Your task to perform on an android device: What's the news in Puerto Rico? Image 0: 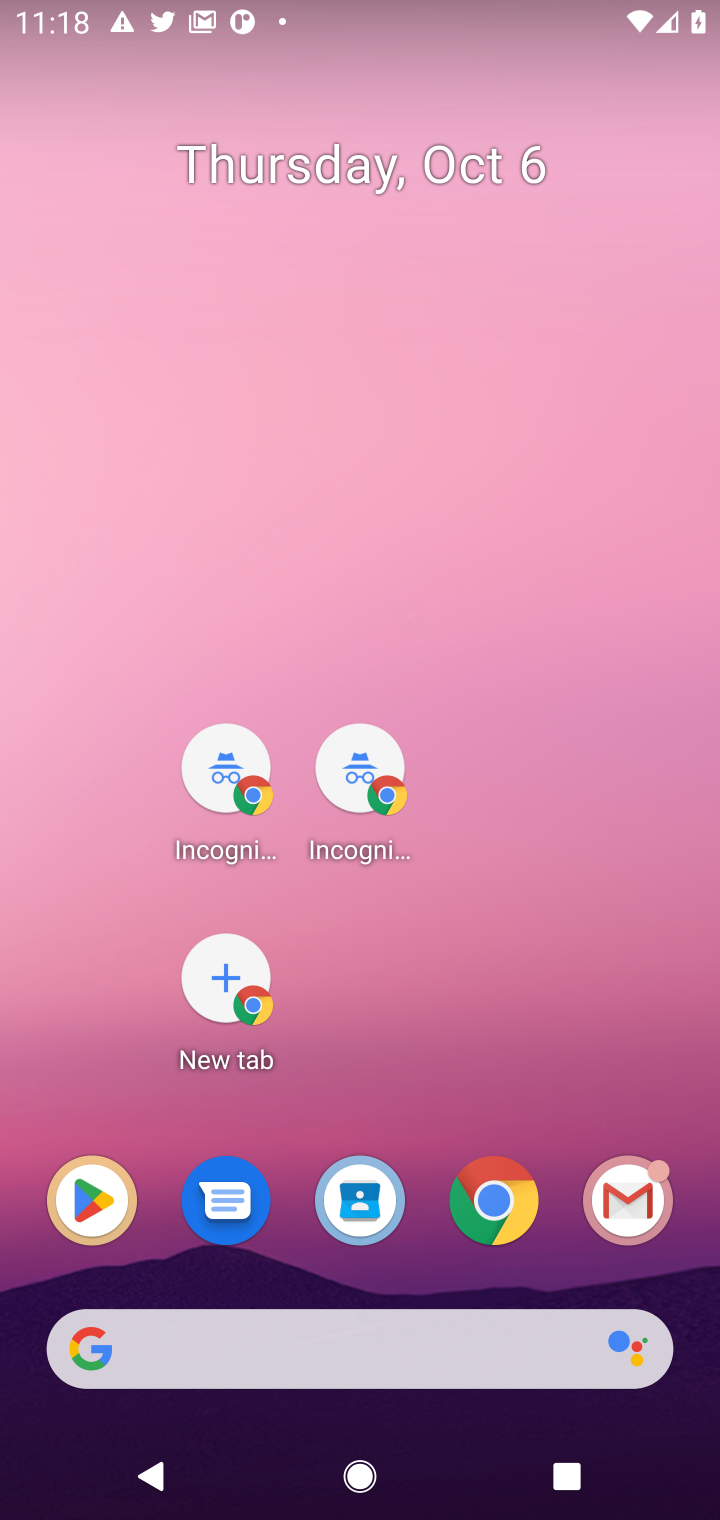
Step 0: click (508, 1216)
Your task to perform on an android device: What's the news in Puerto Rico? Image 1: 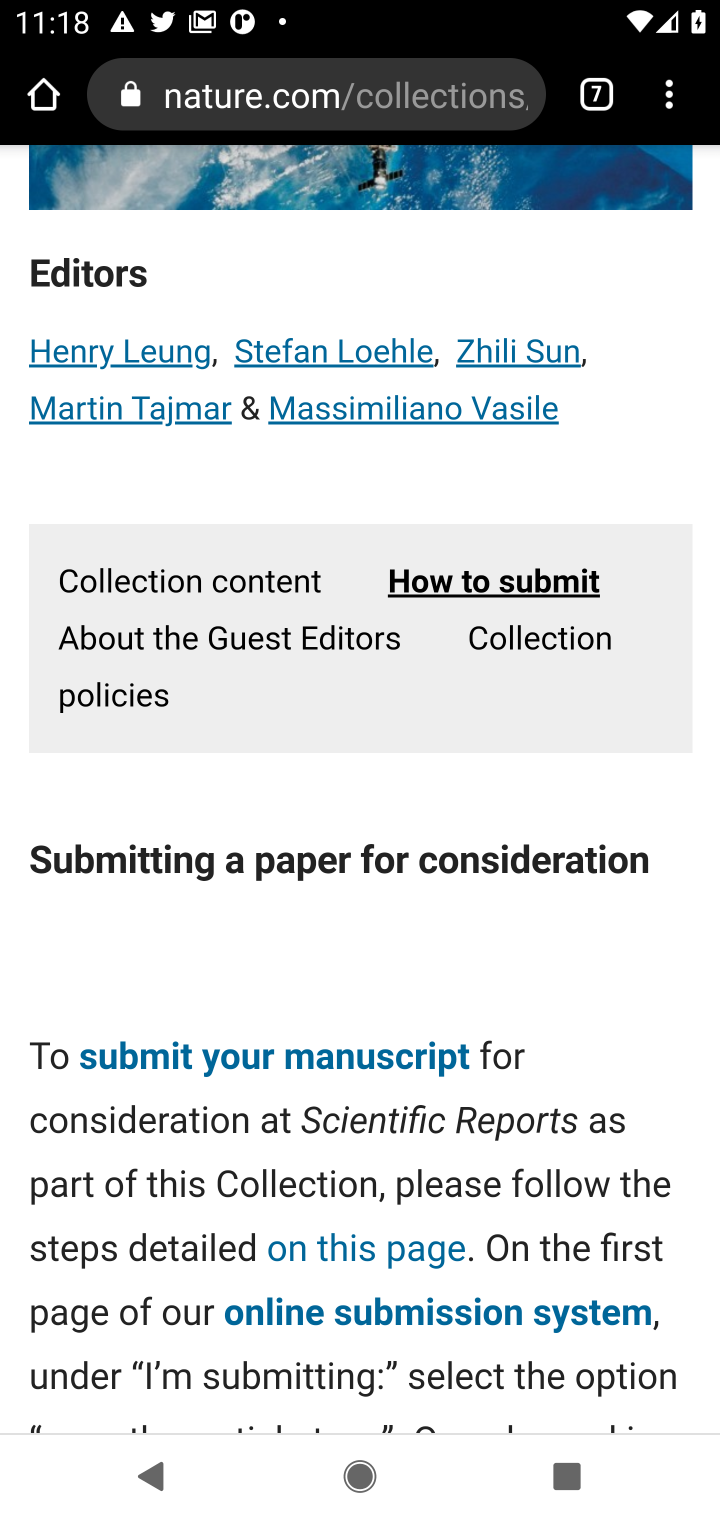
Step 1: press home button
Your task to perform on an android device: What's the news in Puerto Rico? Image 2: 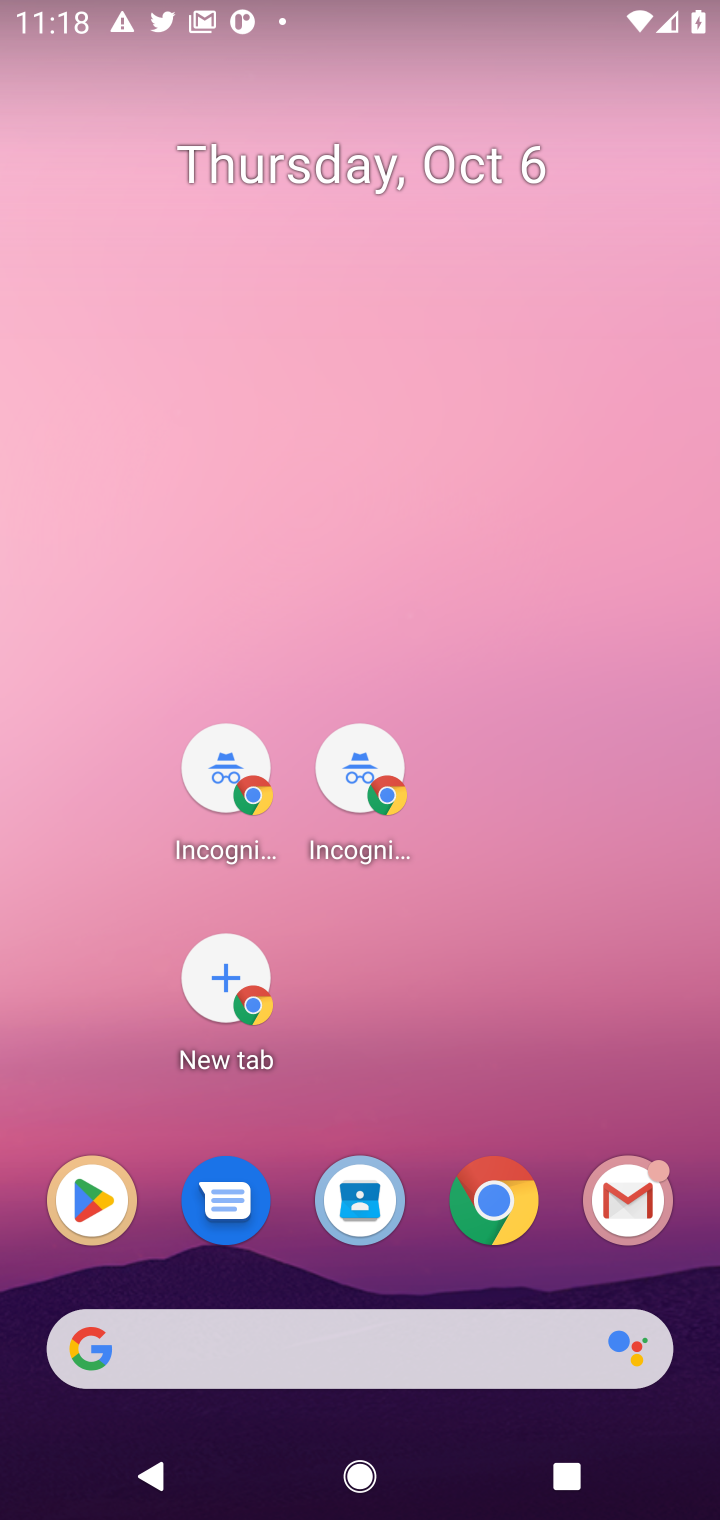
Step 2: click (479, 1196)
Your task to perform on an android device: What's the news in Puerto Rico? Image 3: 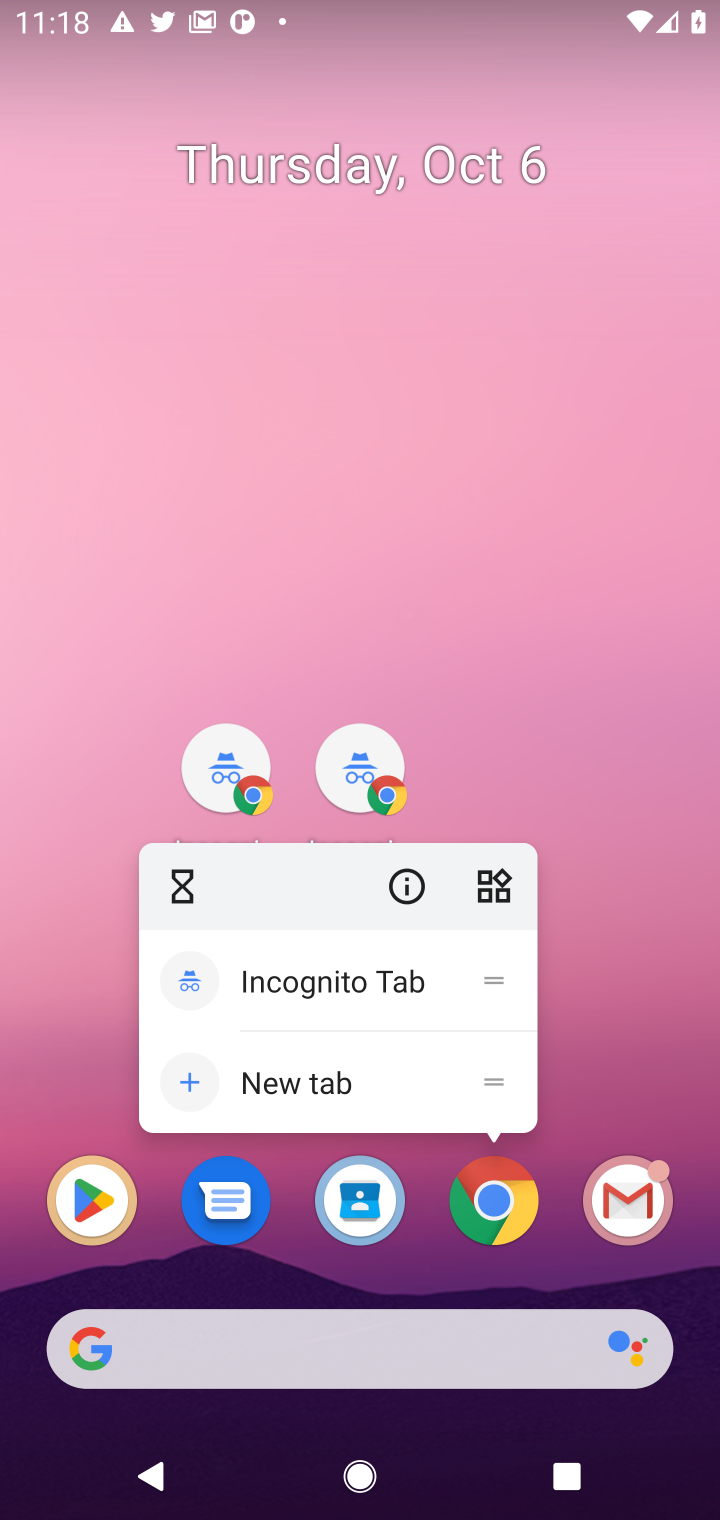
Step 3: press home button
Your task to perform on an android device: What's the news in Puerto Rico? Image 4: 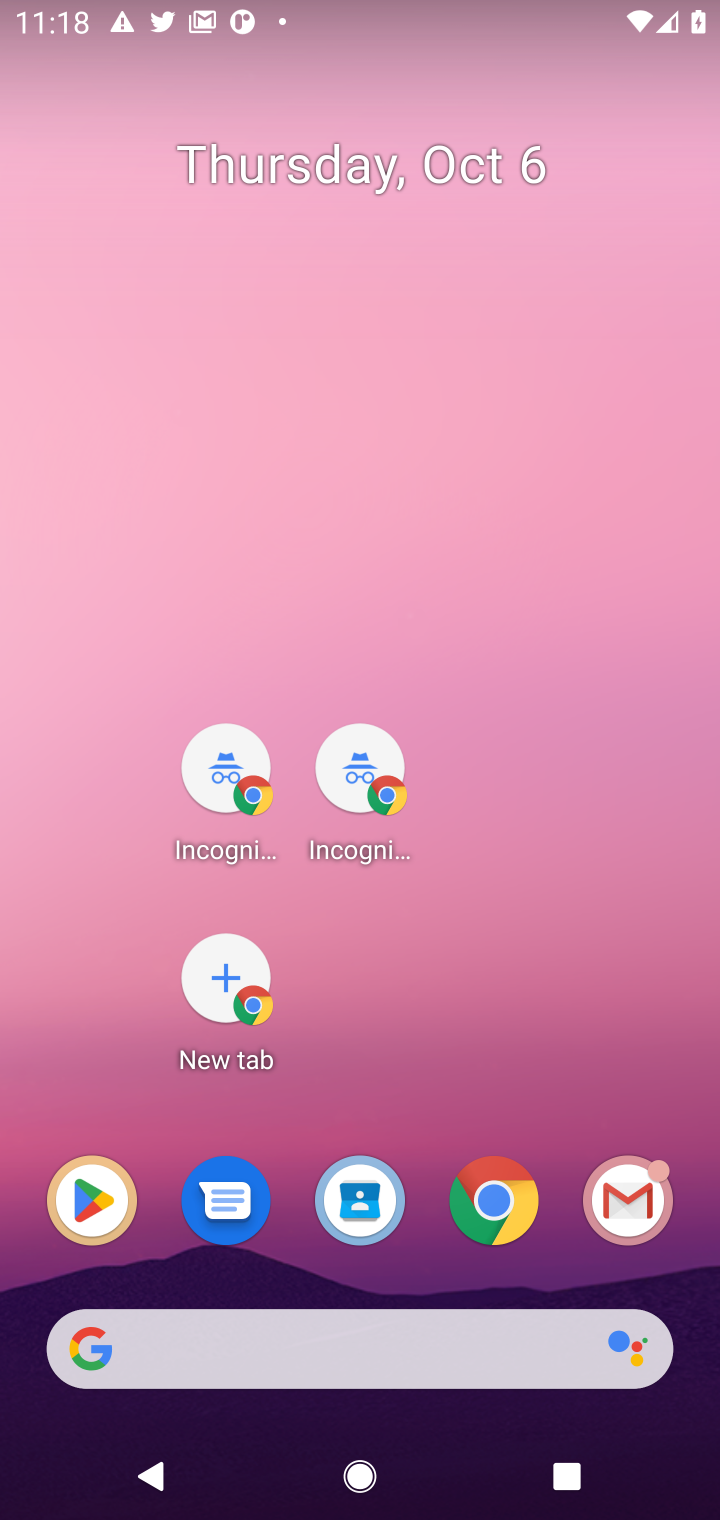
Step 4: press back button
Your task to perform on an android device: What's the news in Puerto Rico? Image 5: 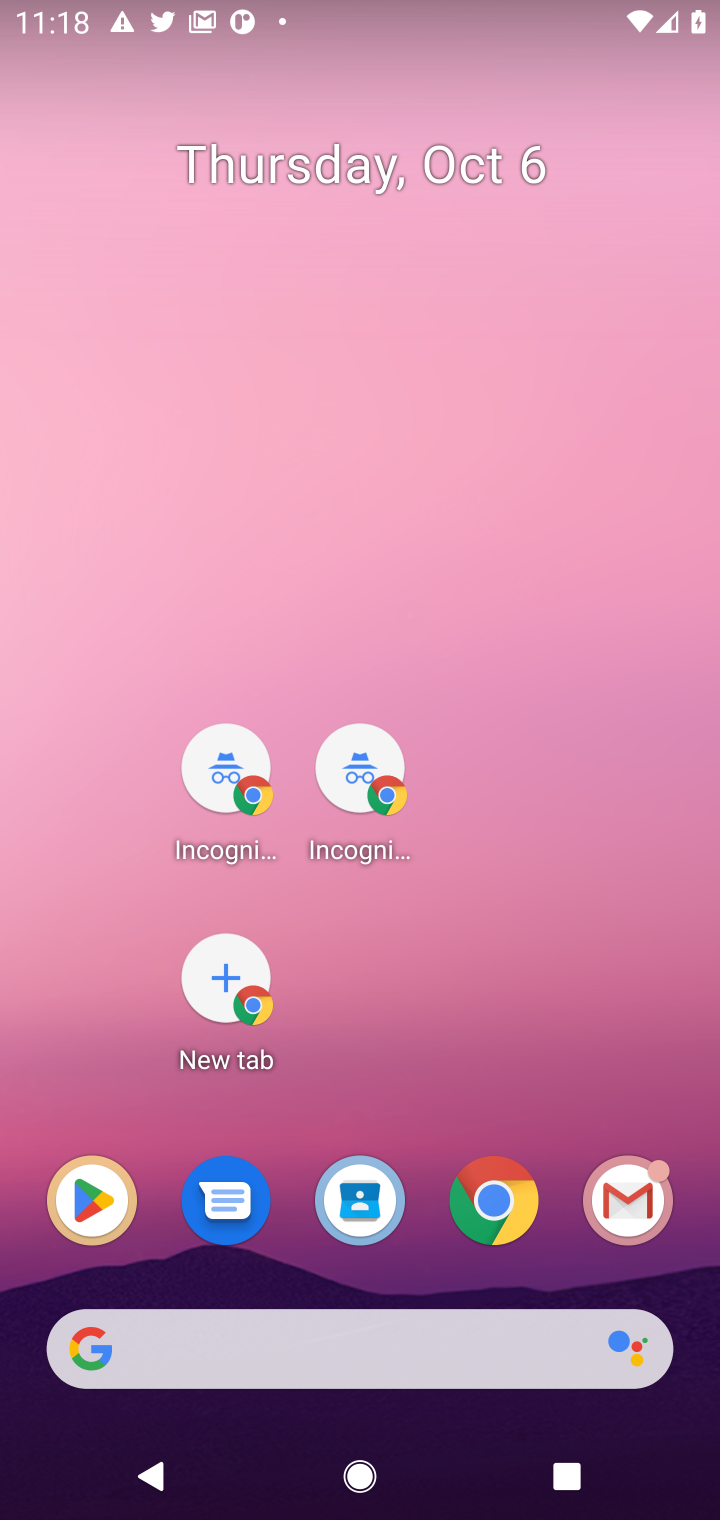
Step 5: press back button
Your task to perform on an android device: What's the news in Puerto Rico? Image 6: 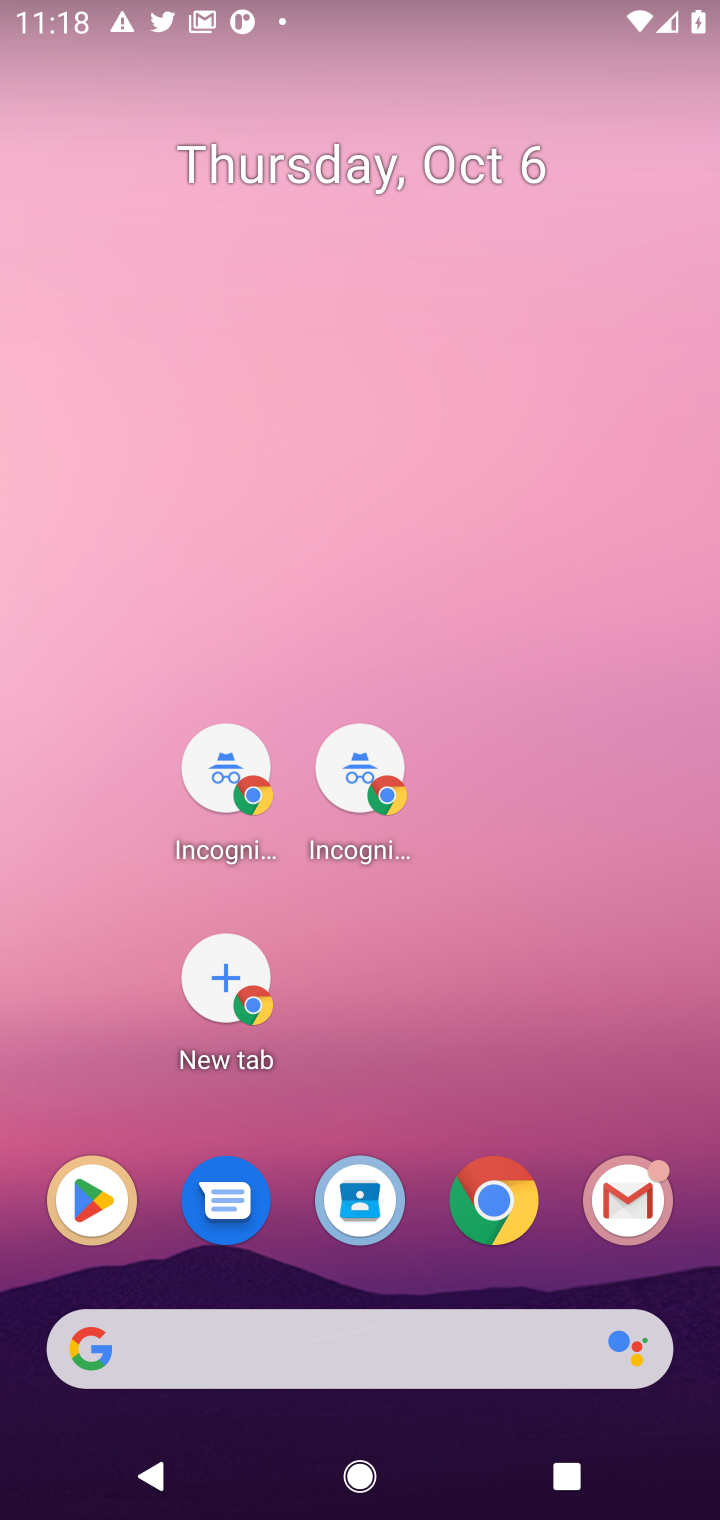
Step 6: click (513, 1211)
Your task to perform on an android device: What's the news in Puerto Rico? Image 7: 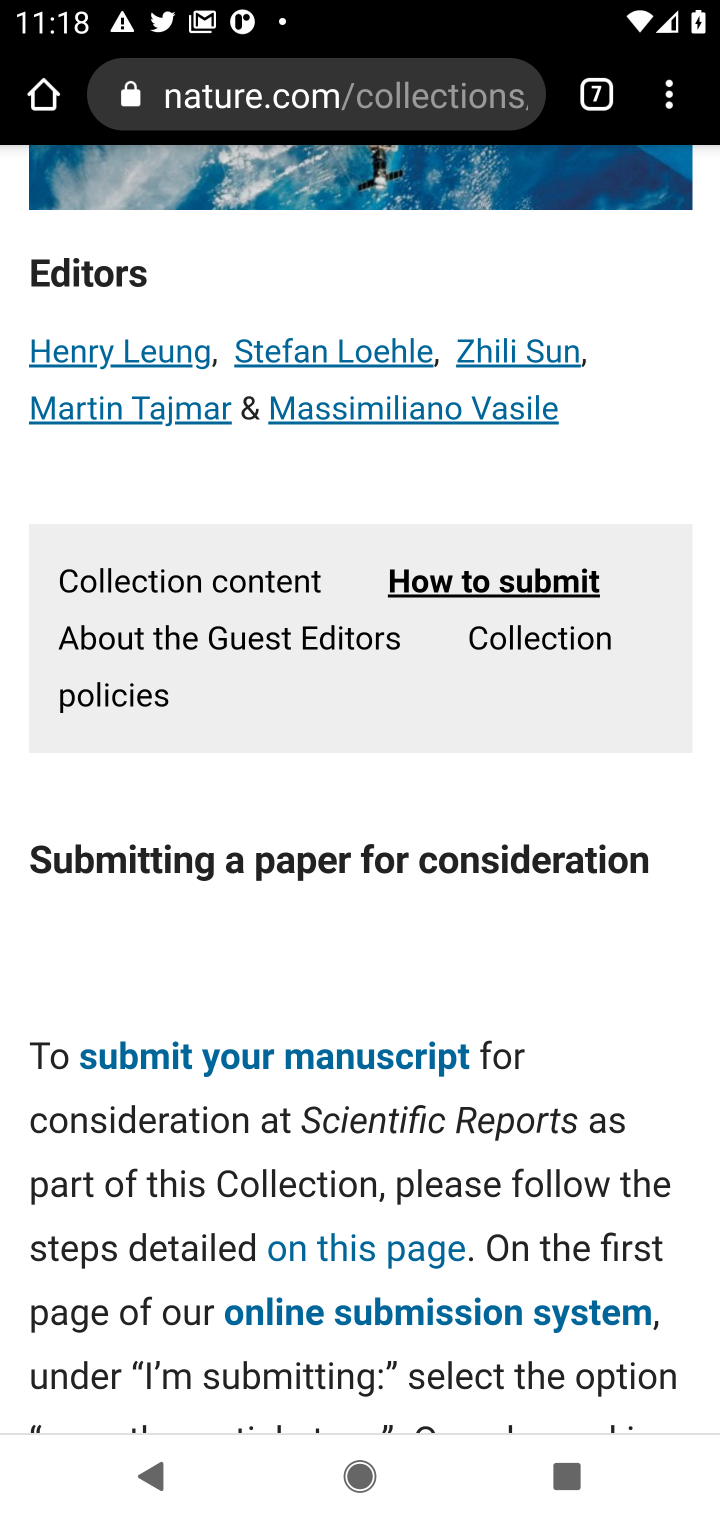
Step 7: click (342, 95)
Your task to perform on an android device: What's the news in Puerto Rico? Image 8: 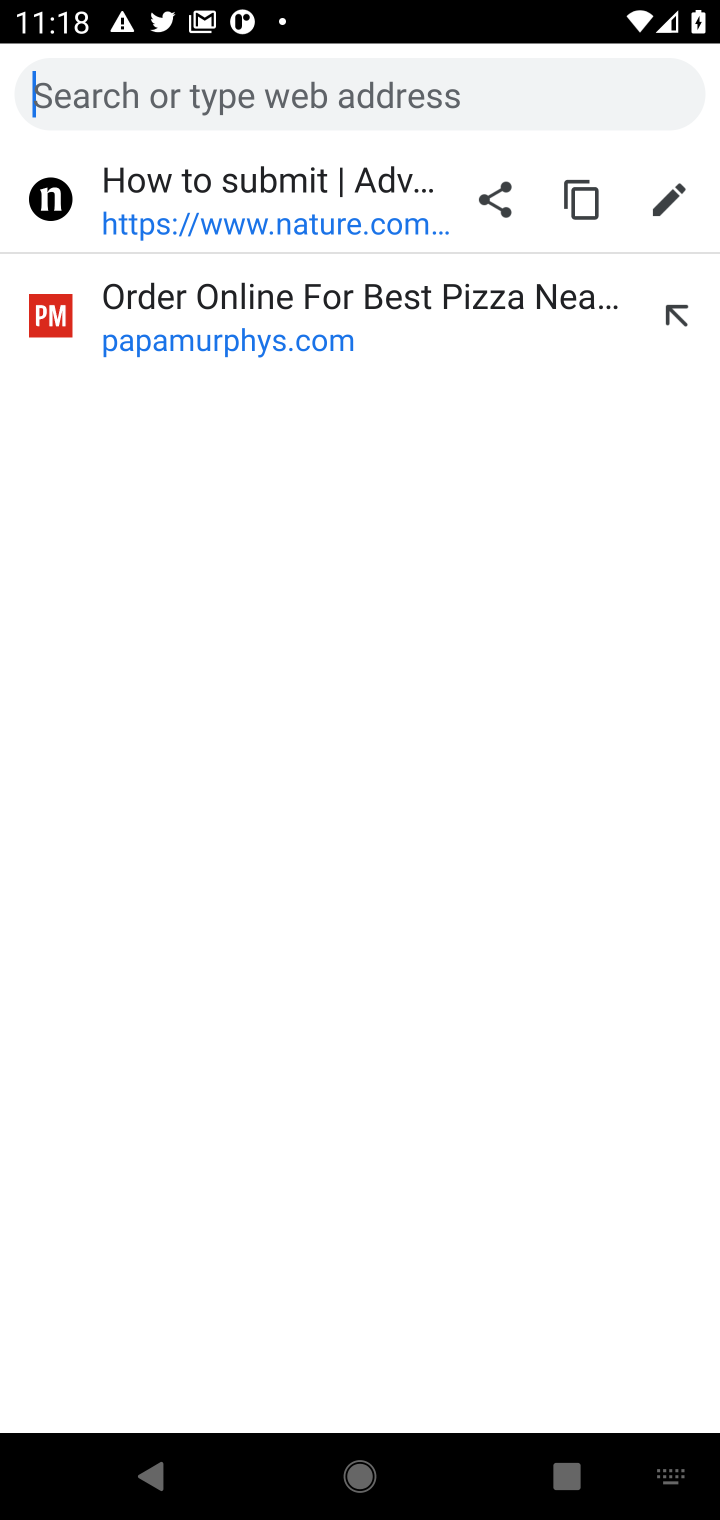
Step 8: type "news in puerto rico"
Your task to perform on an android device: What's the news in Puerto Rico? Image 9: 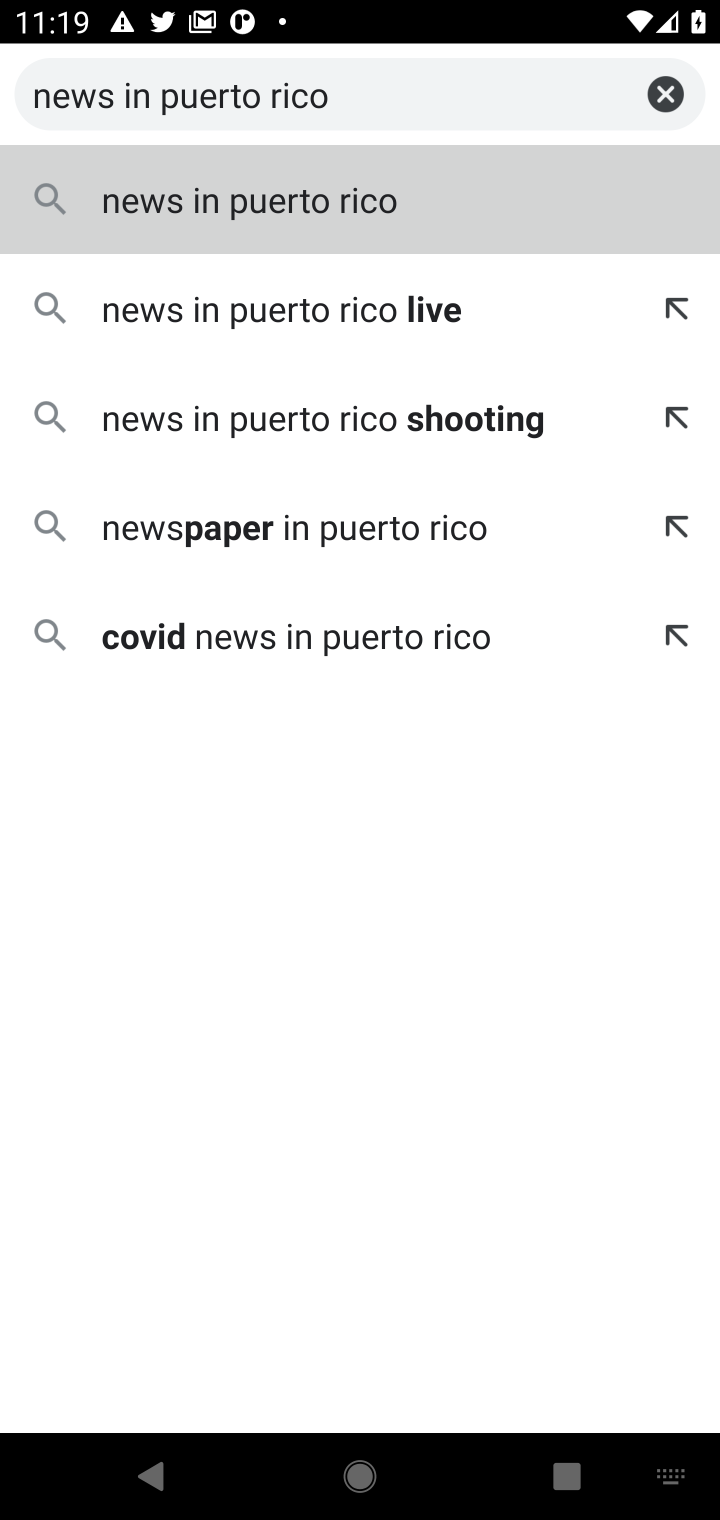
Step 9: click (245, 205)
Your task to perform on an android device: What's the news in Puerto Rico? Image 10: 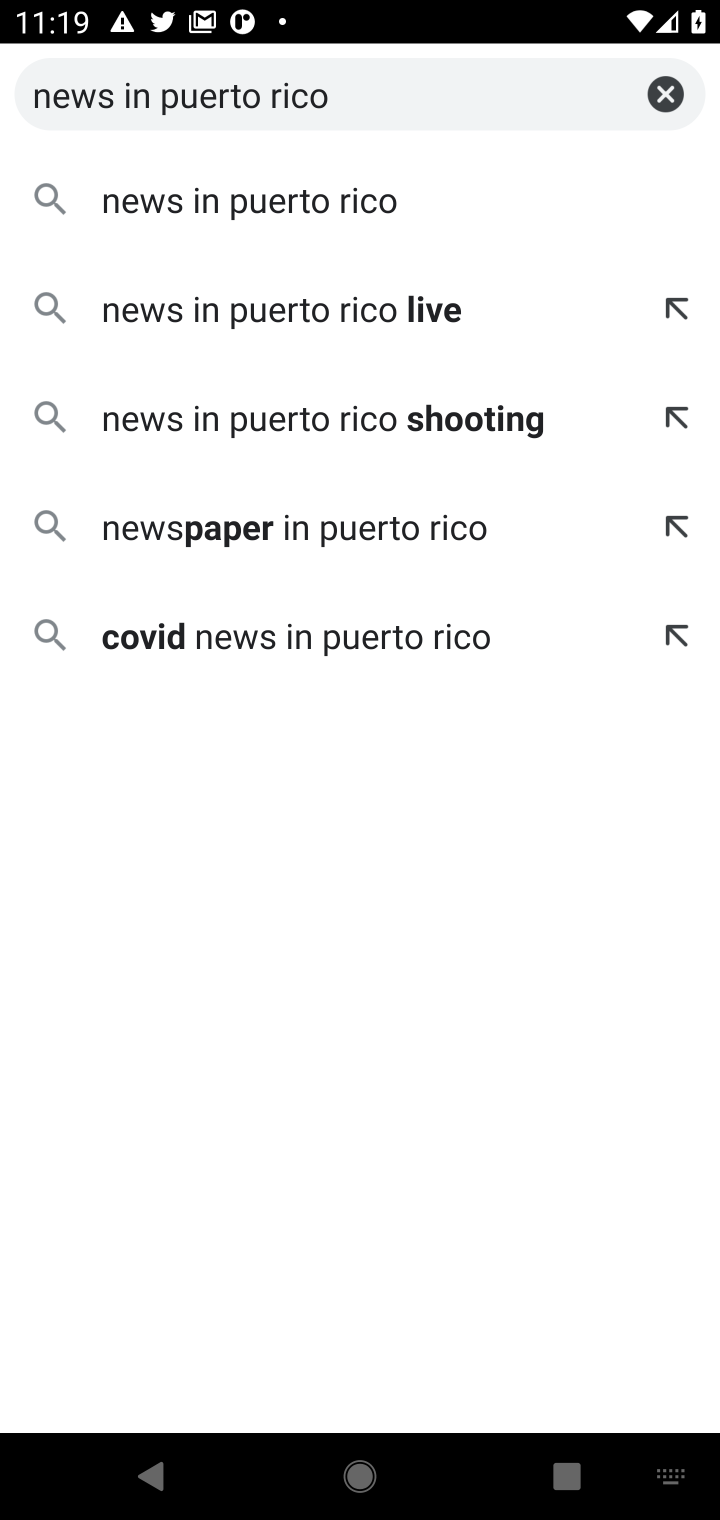
Step 10: click (302, 195)
Your task to perform on an android device: What's the news in Puerto Rico? Image 11: 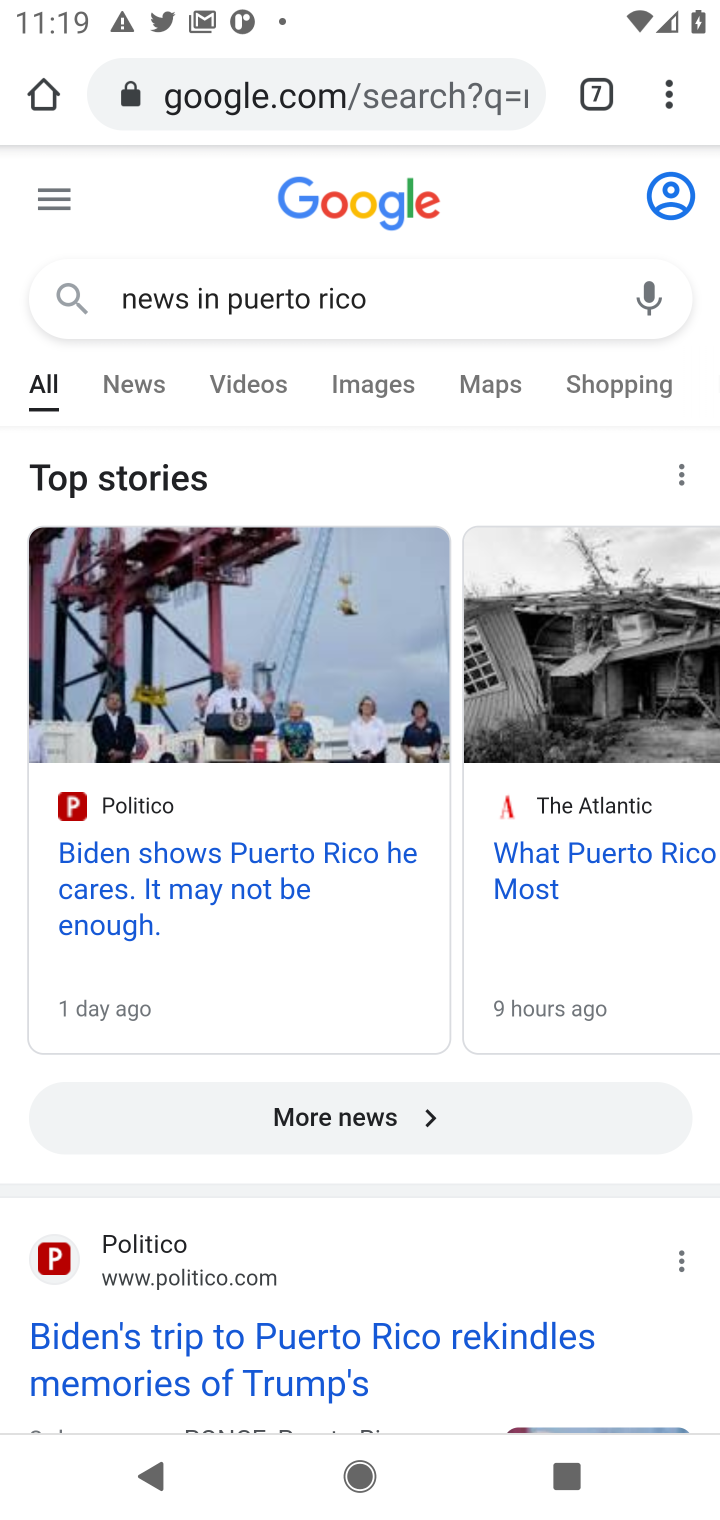
Step 11: click (131, 386)
Your task to perform on an android device: What's the news in Puerto Rico? Image 12: 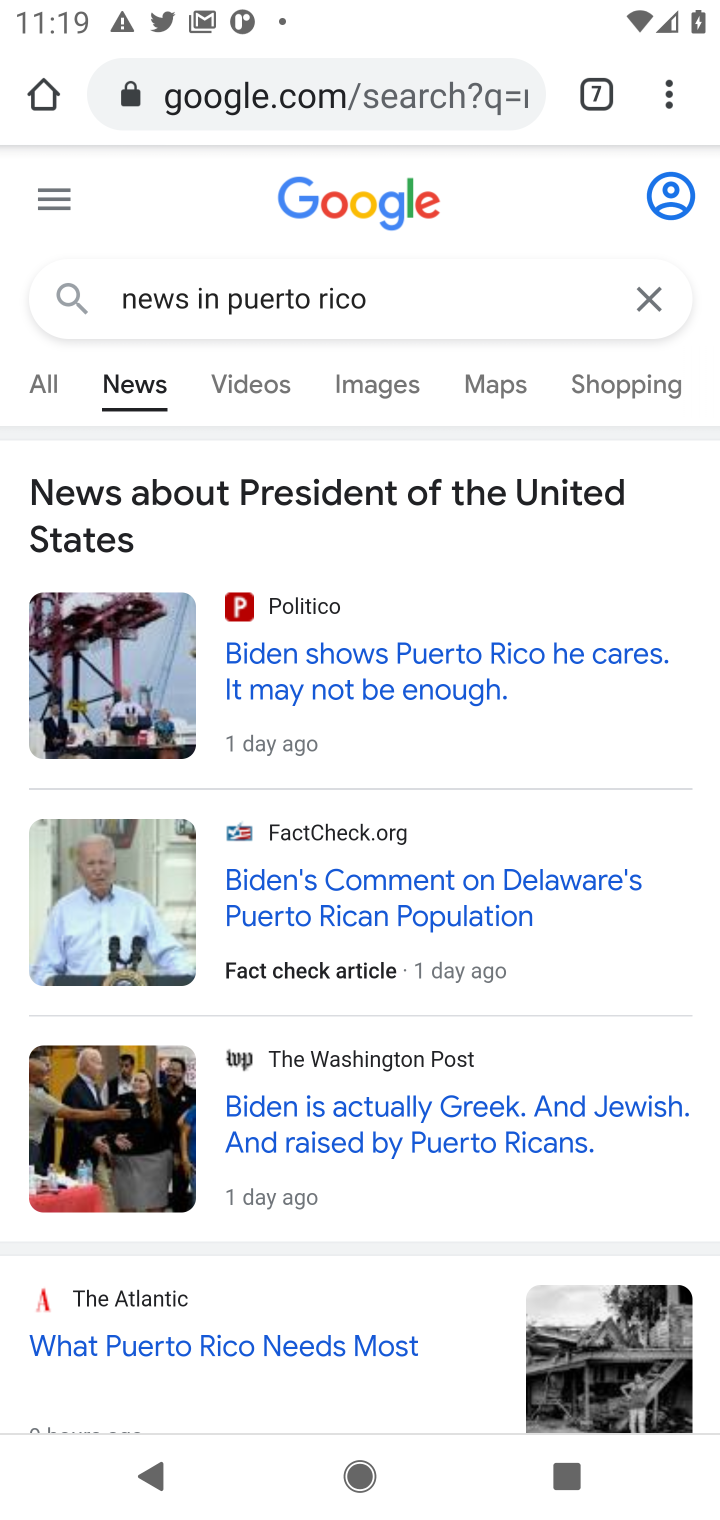
Step 12: task complete